Your task to perform on an android device: Go to Google Image 0: 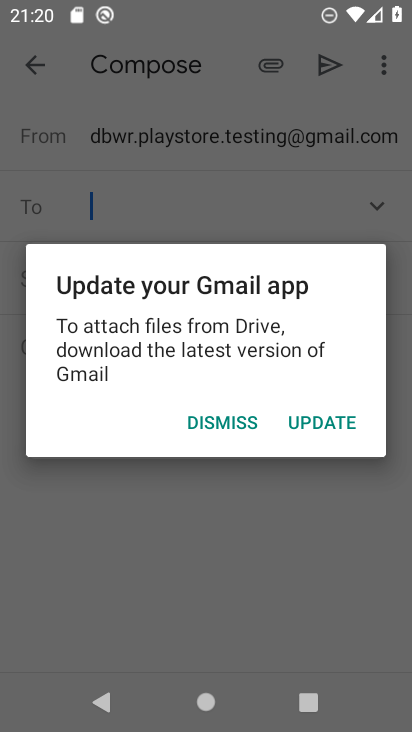
Step 0: press home button
Your task to perform on an android device: Go to Google Image 1: 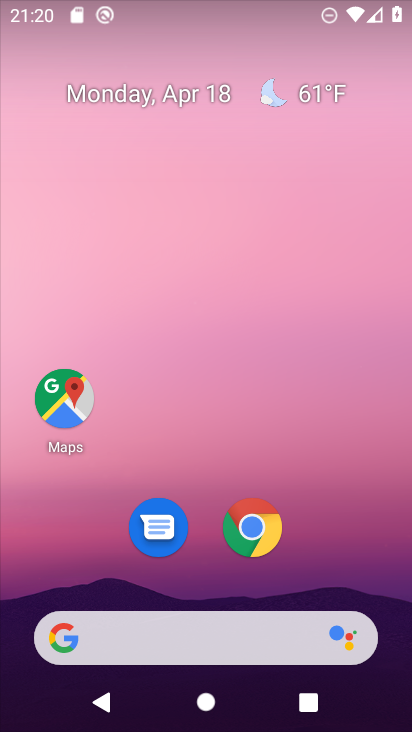
Step 1: click (49, 645)
Your task to perform on an android device: Go to Google Image 2: 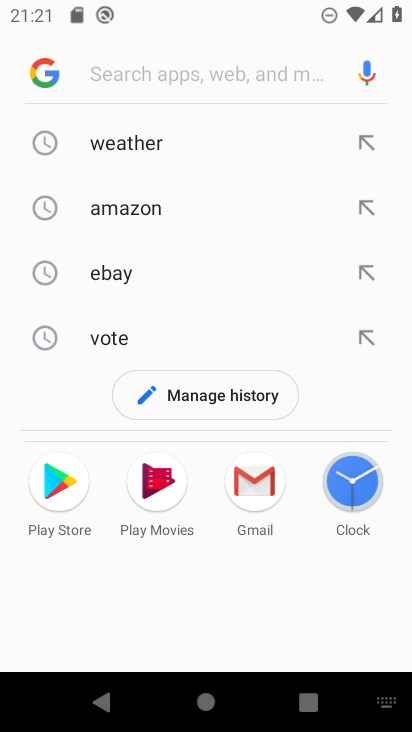
Step 2: click (39, 84)
Your task to perform on an android device: Go to Google Image 3: 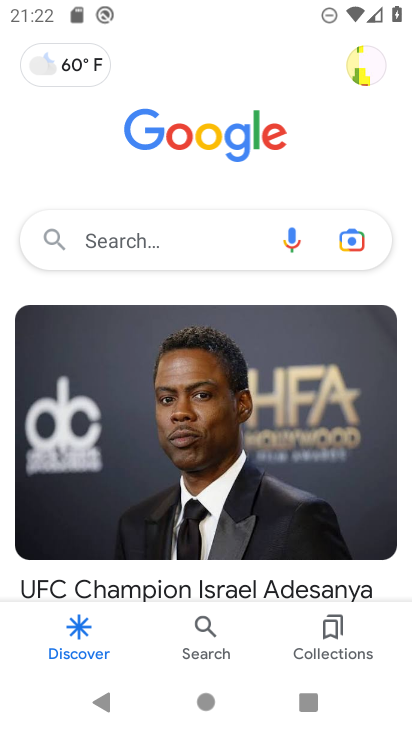
Step 3: task complete